Your task to perform on an android device: Open Maps and search for coffee Image 0: 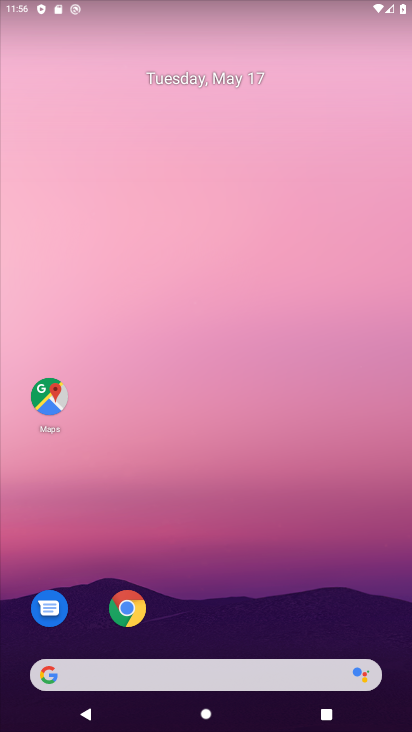
Step 0: click (56, 395)
Your task to perform on an android device: Open Maps and search for coffee Image 1: 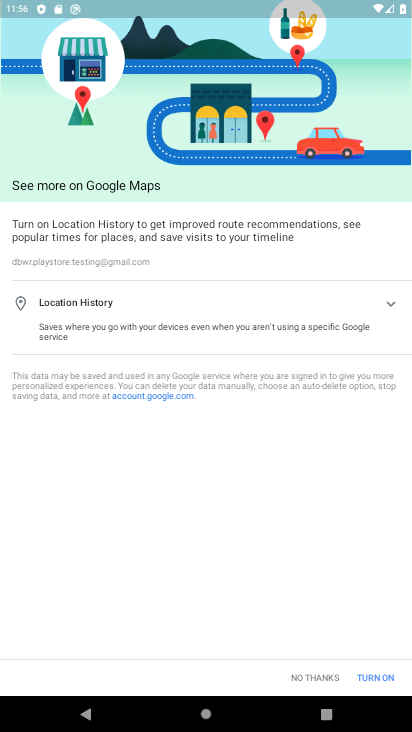
Step 1: click (325, 673)
Your task to perform on an android device: Open Maps and search for coffee Image 2: 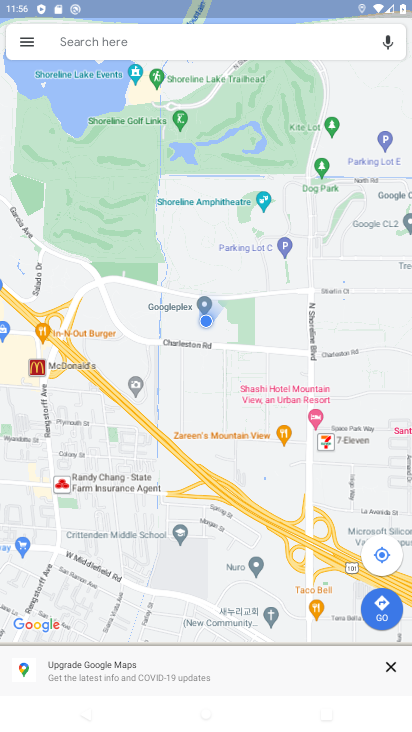
Step 2: click (131, 43)
Your task to perform on an android device: Open Maps and search for coffee Image 3: 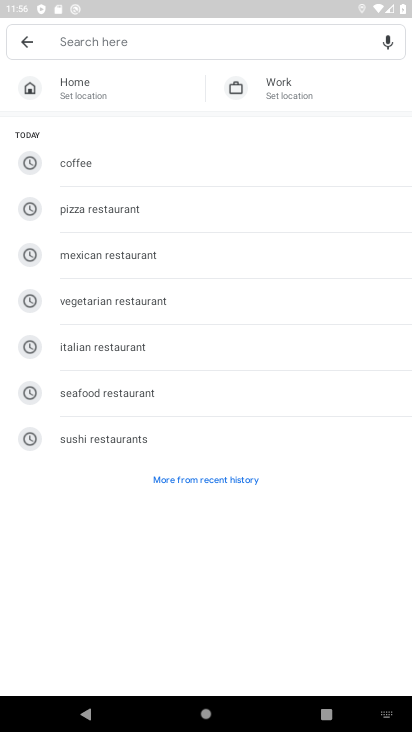
Step 3: click (113, 151)
Your task to perform on an android device: Open Maps and search for coffee Image 4: 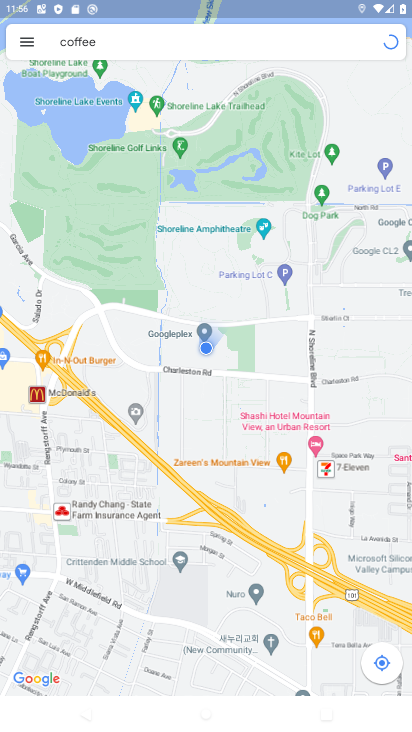
Step 4: task complete